Your task to perform on an android device: set an alarm Image 0: 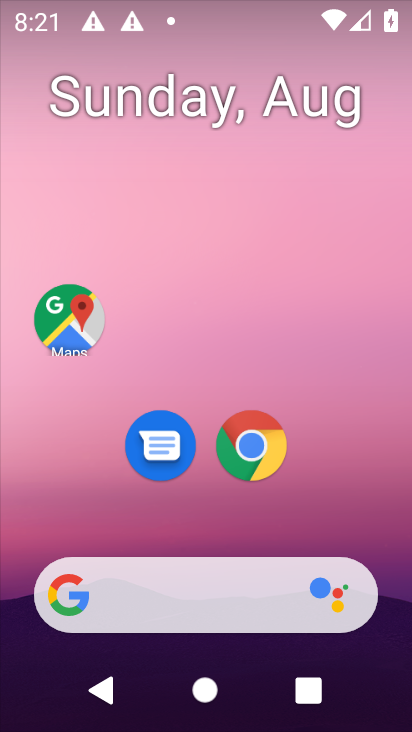
Step 0: press home button
Your task to perform on an android device: set an alarm Image 1: 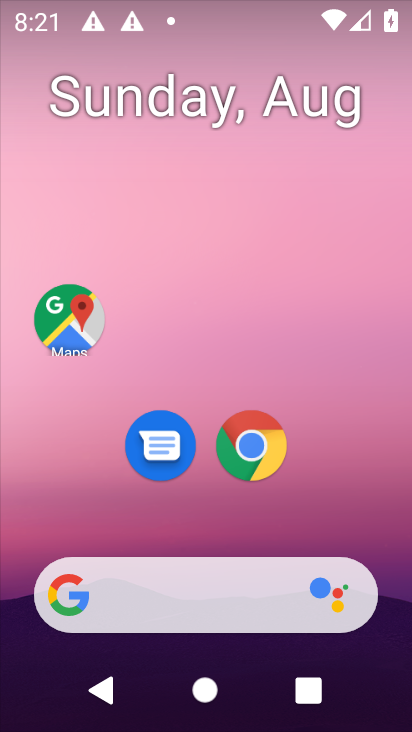
Step 1: press home button
Your task to perform on an android device: set an alarm Image 2: 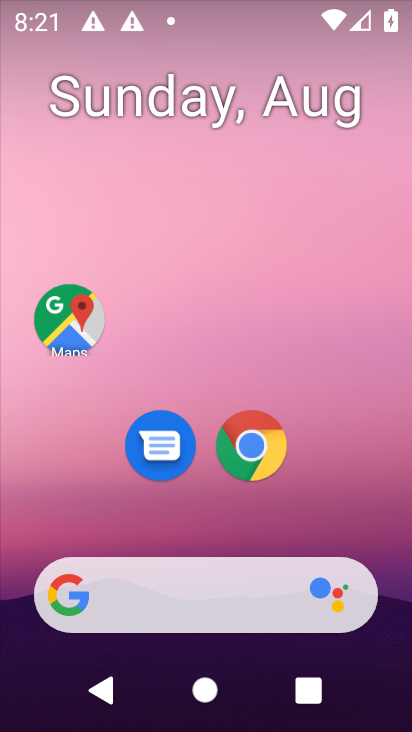
Step 2: drag from (211, 533) to (222, 44)
Your task to perform on an android device: set an alarm Image 3: 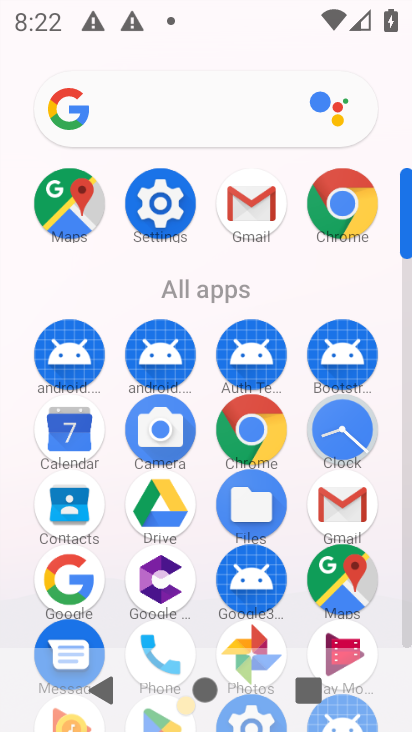
Step 3: click (339, 424)
Your task to perform on an android device: set an alarm Image 4: 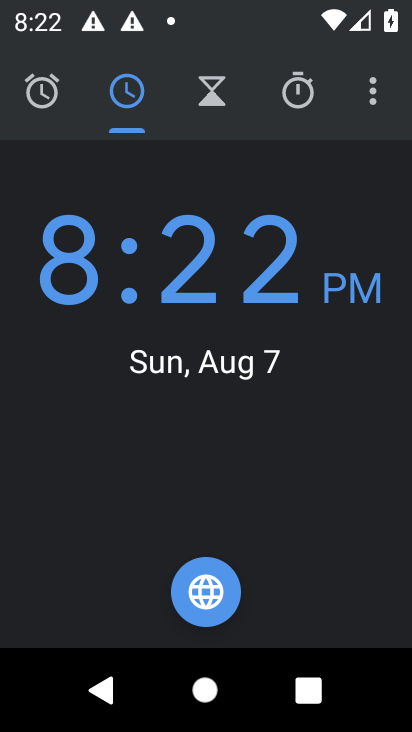
Step 4: click (40, 87)
Your task to perform on an android device: set an alarm Image 5: 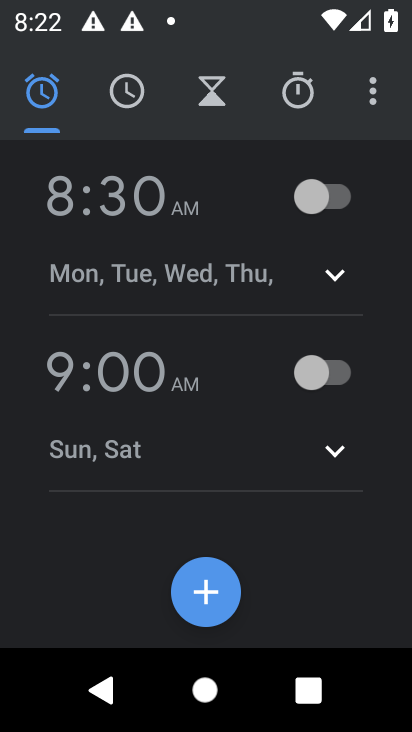
Step 5: click (323, 185)
Your task to perform on an android device: set an alarm Image 6: 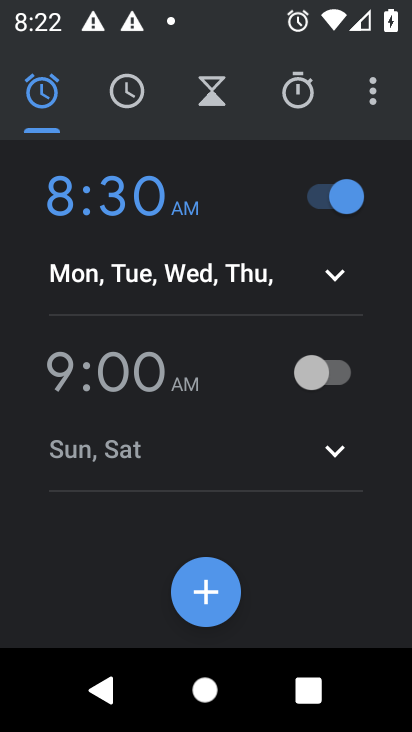
Step 6: click (328, 362)
Your task to perform on an android device: set an alarm Image 7: 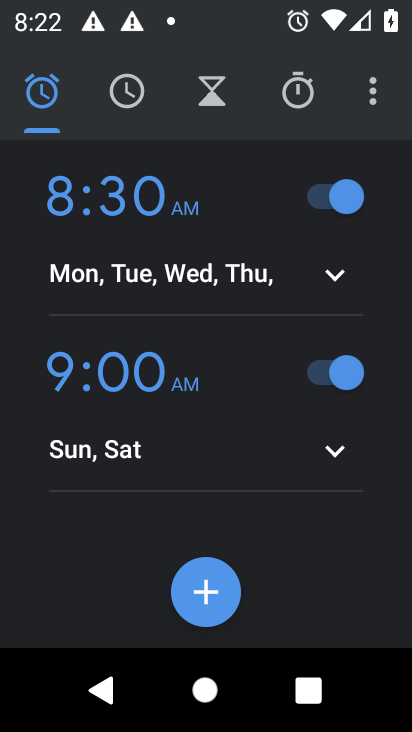
Step 7: task complete